Your task to perform on an android device: turn off airplane mode Image 0: 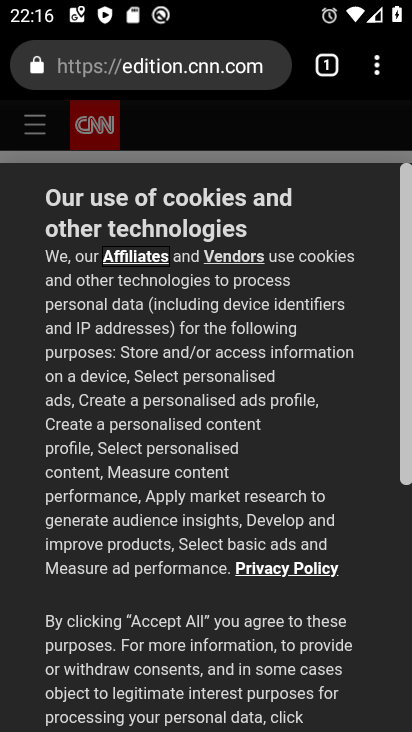
Step 0: press home button
Your task to perform on an android device: turn off airplane mode Image 1: 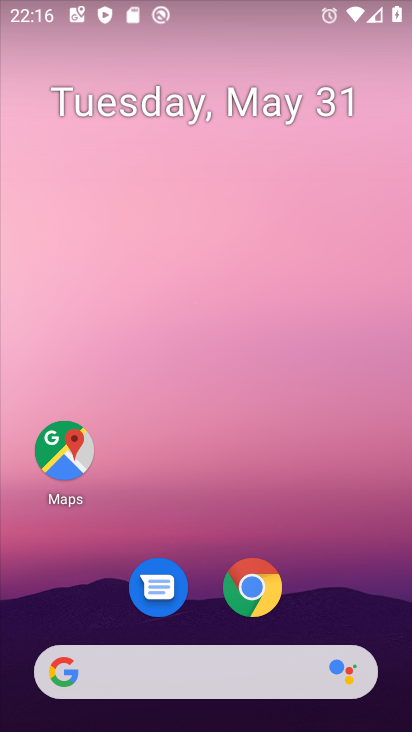
Step 1: drag from (380, 593) to (382, 294)
Your task to perform on an android device: turn off airplane mode Image 2: 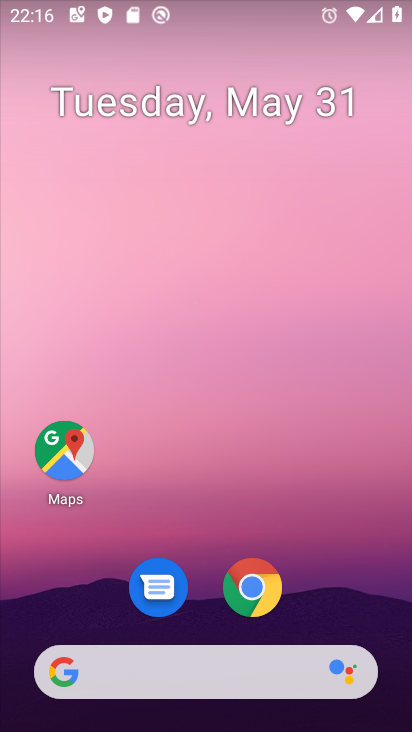
Step 2: drag from (366, 607) to (367, 148)
Your task to perform on an android device: turn off airplane mode Image 3: 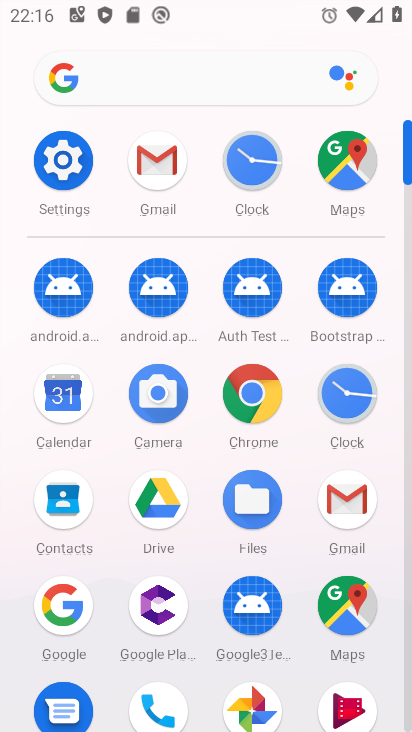
Step 3: click (88, 211)
Your task to perform on an android device: turn off airplane mode Image 4: 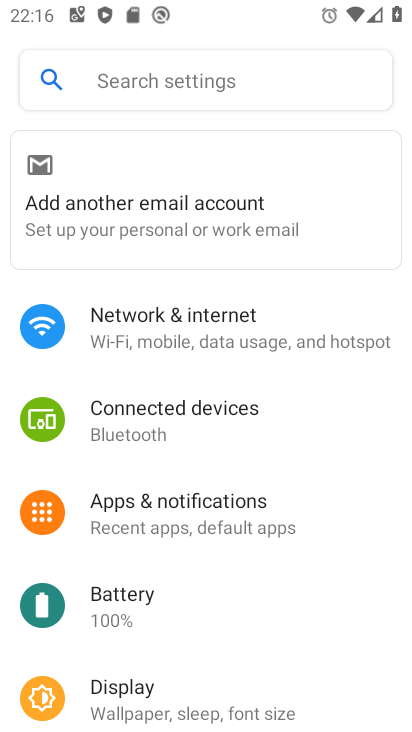
Step 4: drag from (372, 572) to (359, 460)
Your task to perform on an android device: turn off airplane mode Image 5: 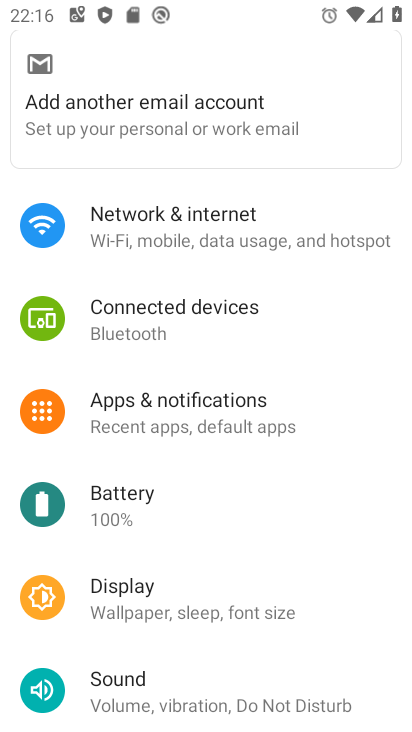
Step 5: drag from (361, 583) to (347, 476)
Your task to perform on an android device: turn off airplane mode Image 6: 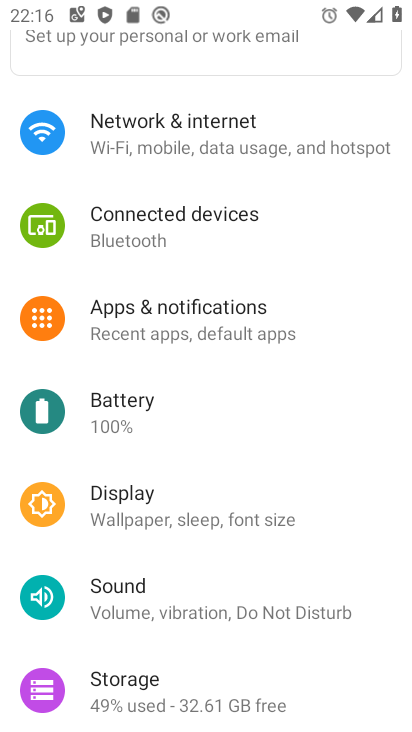
Step 6: drag from (350, 567) to (343, 469)
Your task to perform on an android device: turn off airplane mode Image 7: 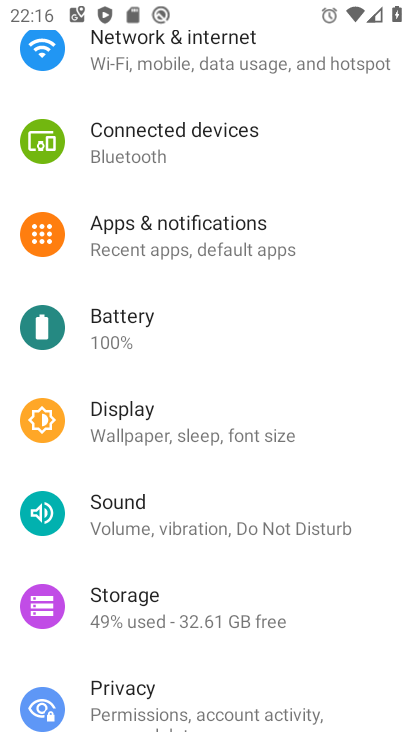
Step 7: drag from (356, 542) to (356, 477)
Your task to perform on an android device: turn off airplane mode Image 8: 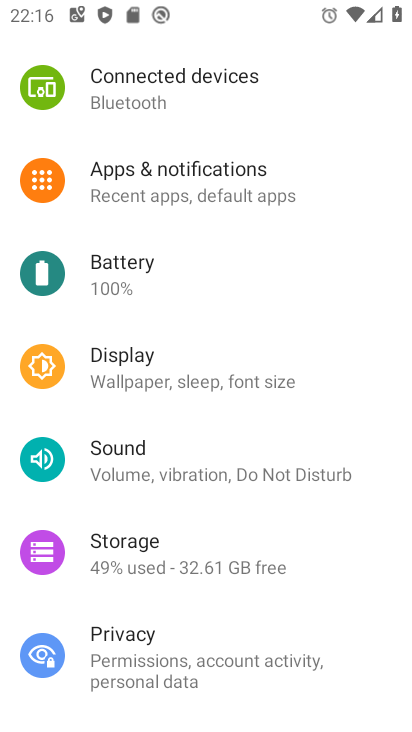
Step 8: drag from (355, 532) to (353, 420)
Your task to perform on an android device: turn off airplane mode Image 9: 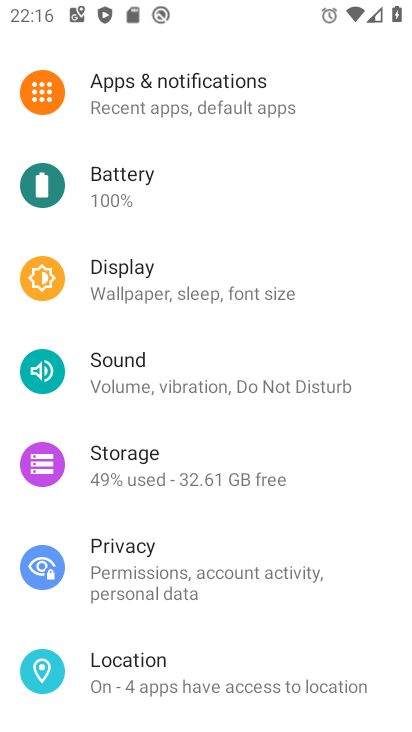
Step 9: drag from (356, 471) to (366, 323)
Your task to perform on an android device: turn off airplane mode Image 10: 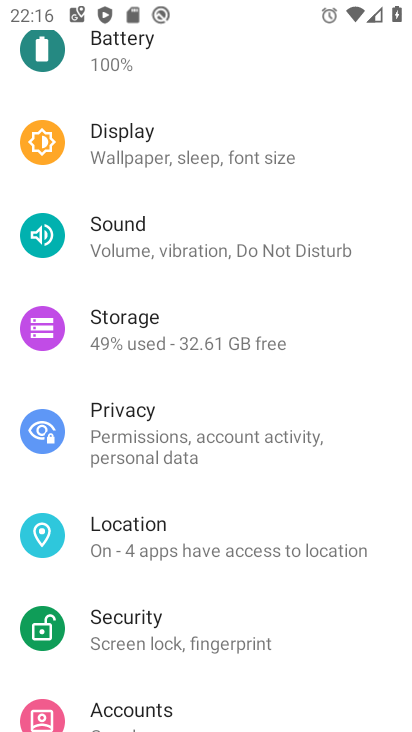
Step 10: drag from (383, 593) to (376, 395)
Your task to perform on an android device: turn off airplane mode Image 11: 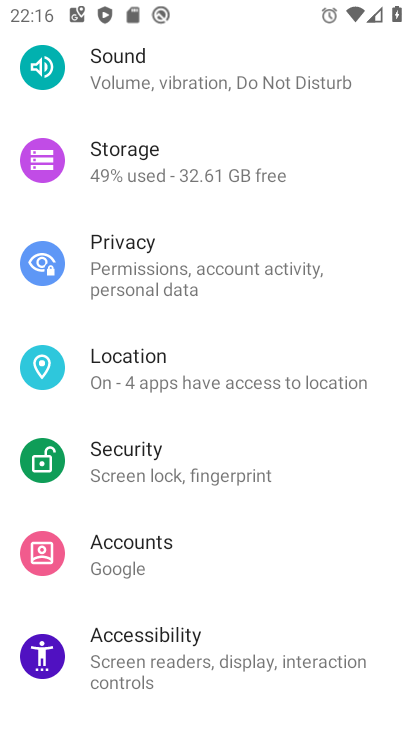
Step 11: drag from (371, 575) to (359, 426)
Your task to perform on an android device: turn off airplane mode Image 12: 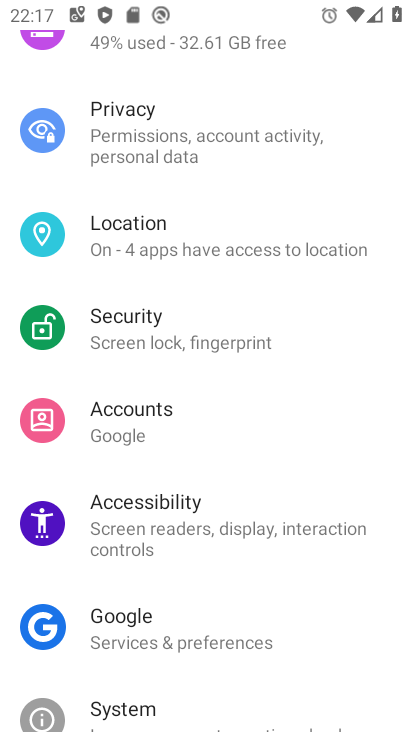
Step 12: drag from (347, 609) to (346, 421)
Your task to perform on an android device: turn off airplane mode Image 13: 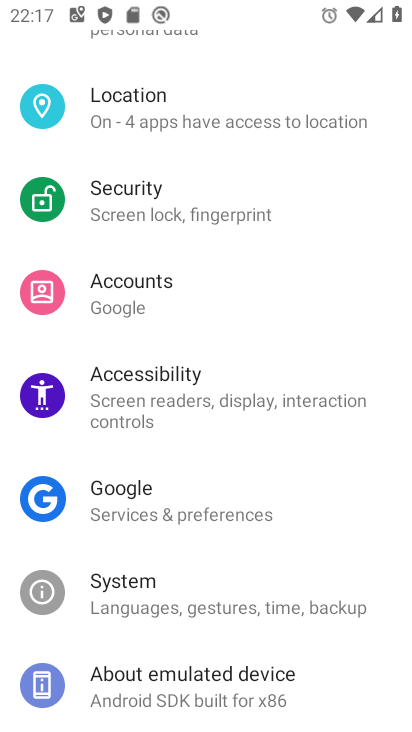
Step 13: drag from (355, 438) to (357, 548)
Your task to perform on an android device: turn off airplane mode Image 14: 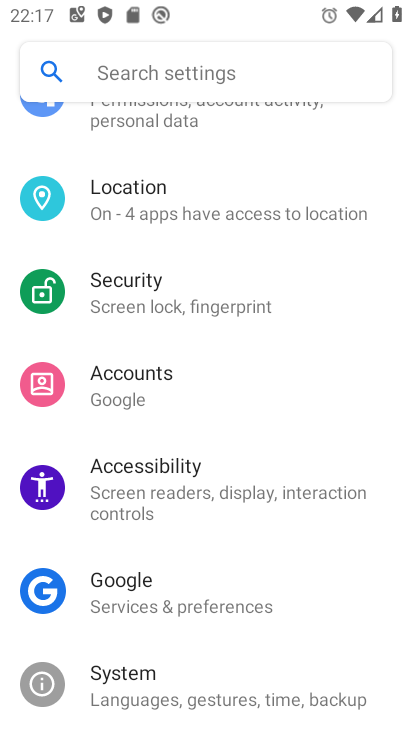
Step 14: drag from (375, 348) to (373, 482)
Your task to perform on an android device: turn off airplane mode Image 15: 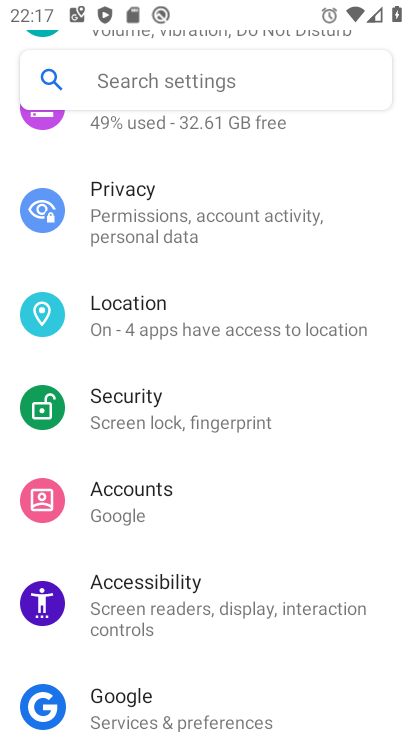
Step 15: drag from (370, 270) to (368, 411)
Your task to perform on an android device: turn off airplane mode Image 16: 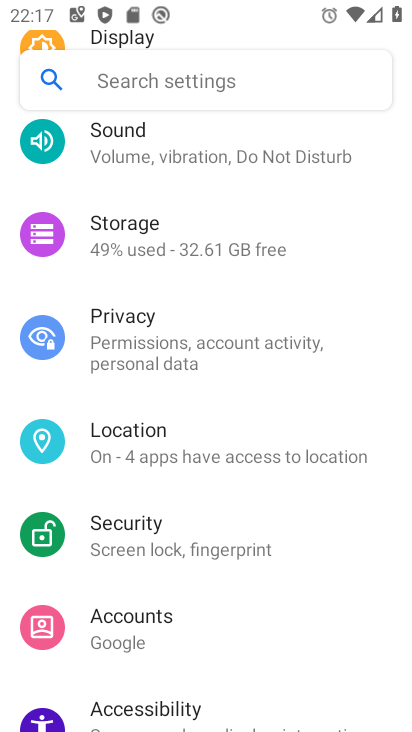
Step 16: drag from (372, 215) to (371, 378)
Your task to perform on an android device: turn off airplane mode Image 17: 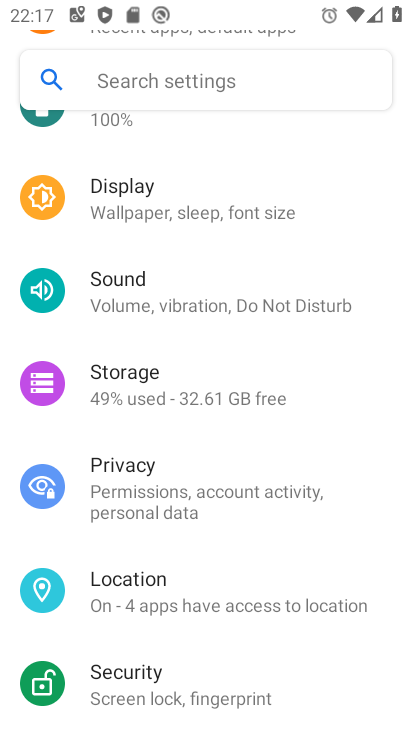
Step 17: drag from (359, 218) to (364, 355)
Your task to perform on an android device: turn off airplane mode Image 18: 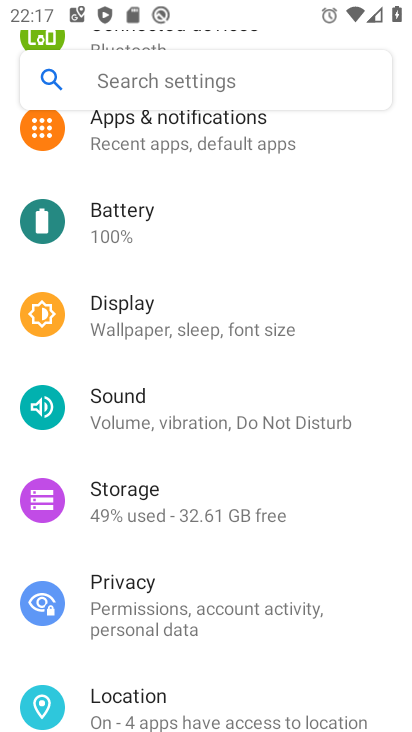
Step 18: drag from (358, 188) to (359, 309)
Your task to perform on an android device: turn off airplane mode Image 19: 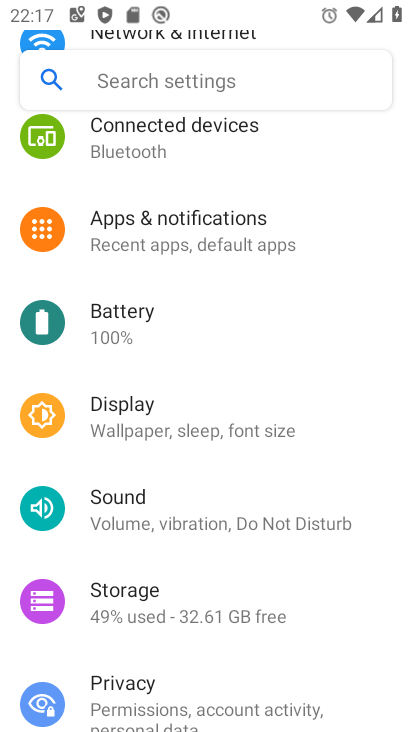
Step 19: drag from (341, 187) to (347, 309)
Your task to perform on an android device: turn off airplane mode Image 20: 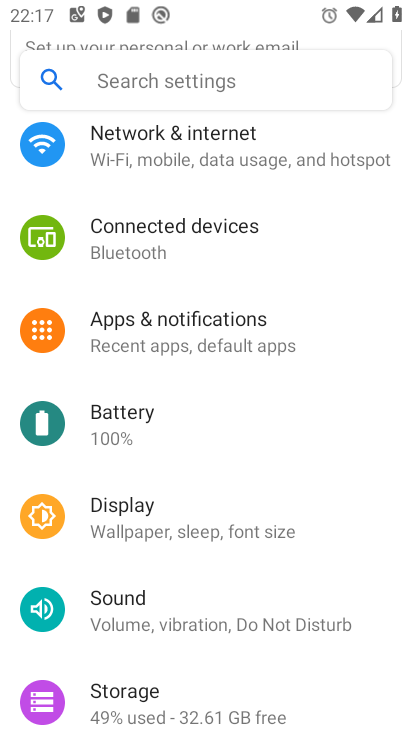
Step 20: drag from (354, 243) to (360, 338)
Your task to perform on an android device: turn off airplane mode Image 21: 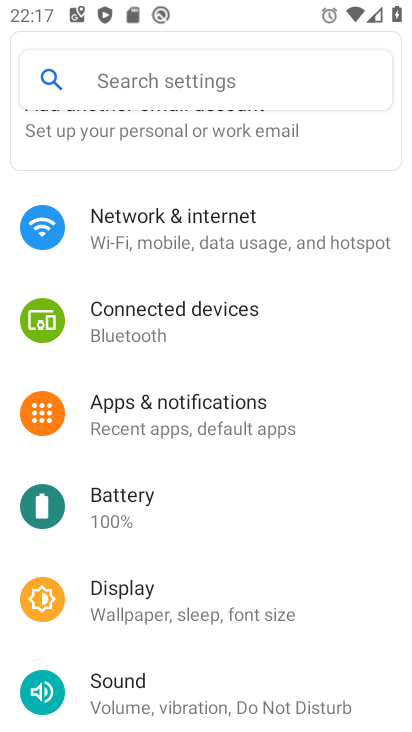
Step 21: drag from (334, 275) to (354, 457)
Your task to perform on an android device: turn off airplane mode Image 22: 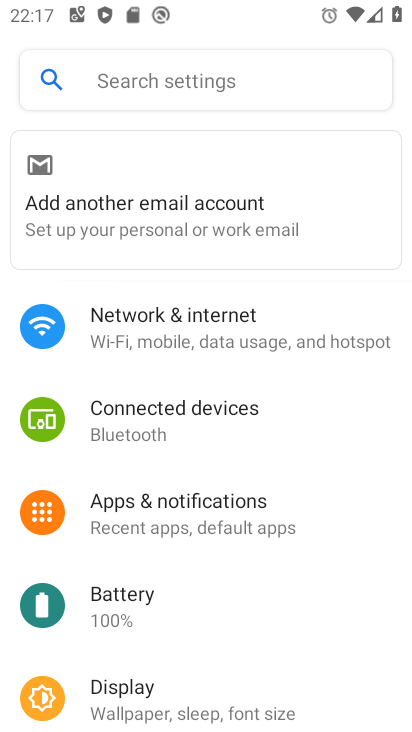
Step 22: click (290, 334)
Your task to perform on an android device: turn off airplane mode Image 23: 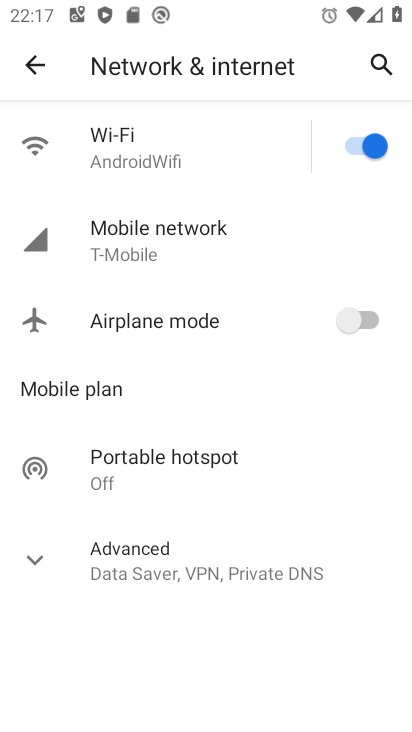
Step 23: task complete